Your task to perform on an android device: check data usage Image 0: 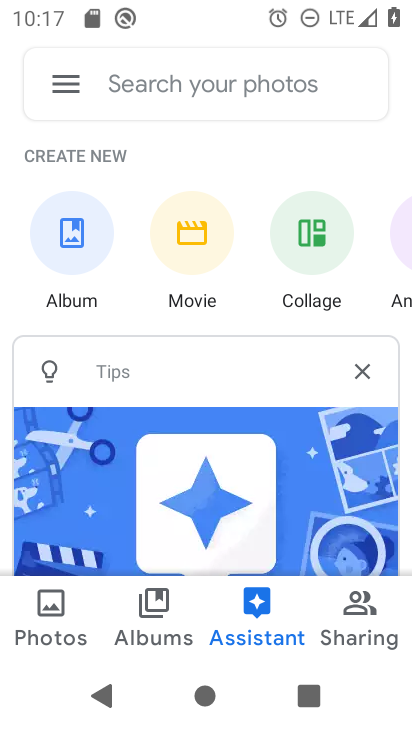
Step 0: press home button
Your task to perform on an android device: check data usage Image 1: 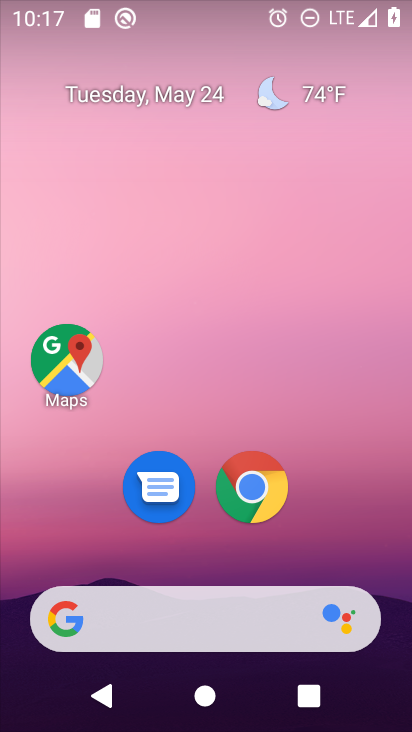
Step 1: drag from (391, 572) to (353, 11)
Your task to perform on an android device: check data usage Image 2: 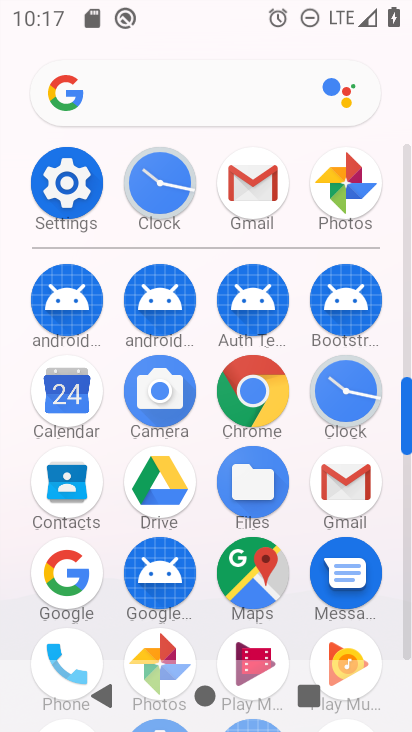
Step 2: click (65, 187)
Your task to perform on an android device: check data usage Image 3: 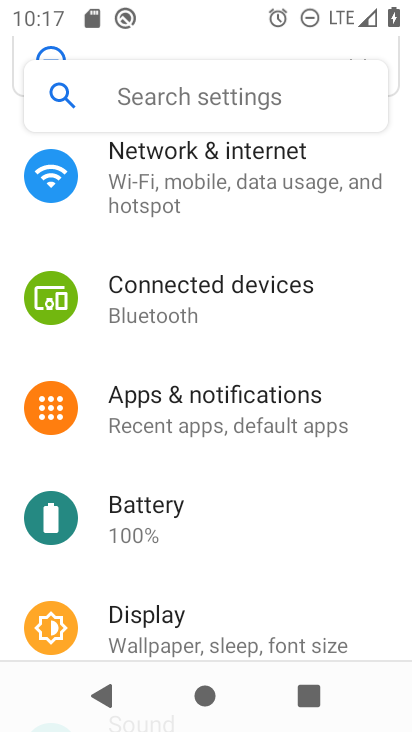
Step 3: click (181, 191)
Your task to perform on an android device: check data usage Image 4: 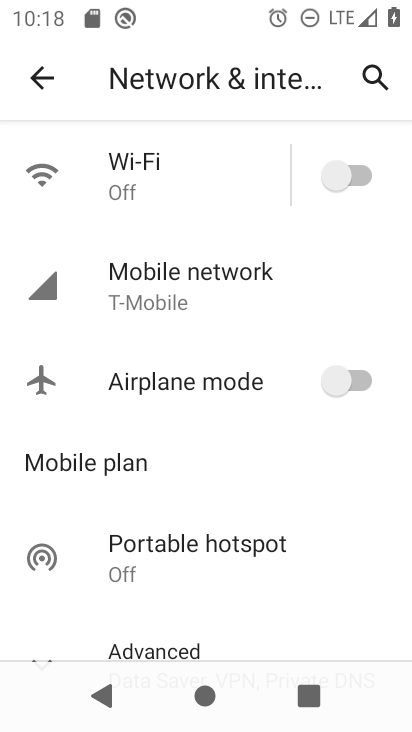
Step 4: click (163, 280)
Your task to perform on an android device: check data usage Image 5: 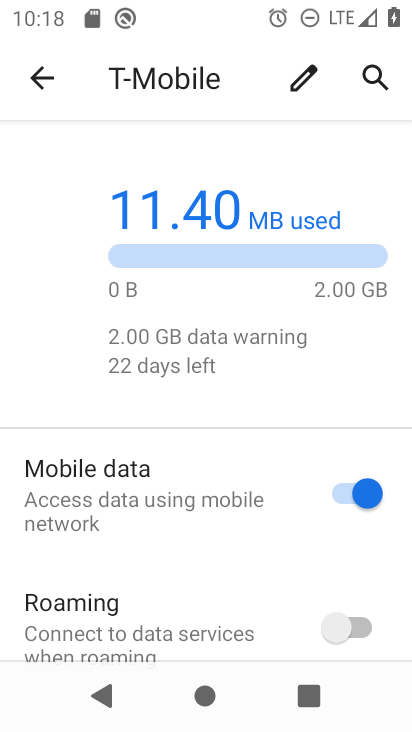
Step 5: drag from (148, 545) to (136, 110)
Your task to perform on an android device: check data usage Image 6: 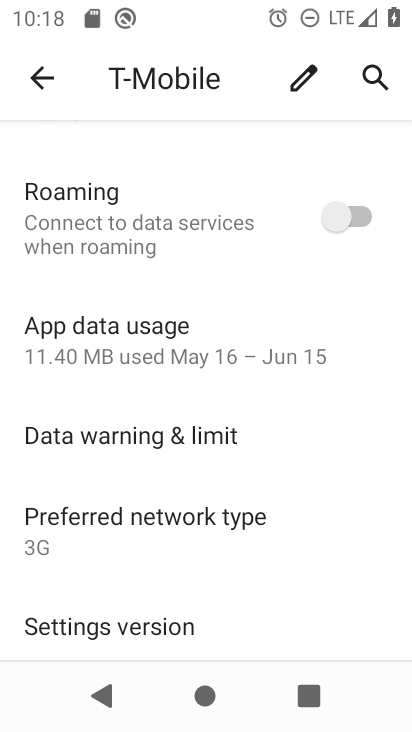
Step 6: click (118, 362)
Your task to perform on an android device: check data usage Image 7: 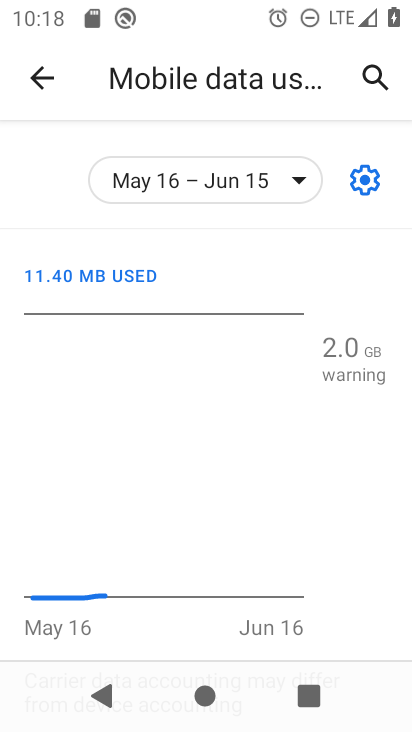
Step 7: task complete